Your task to perform on an android device: Play the last video I watched on Youtube Image 0: 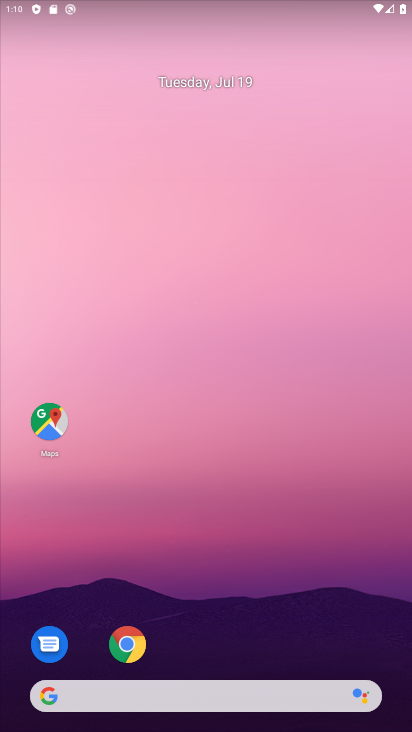
Step 0: drag from (394, 705) to (313, 125)
Your task to perform on an android device: Play the last video I watched on Youtube Image 1: 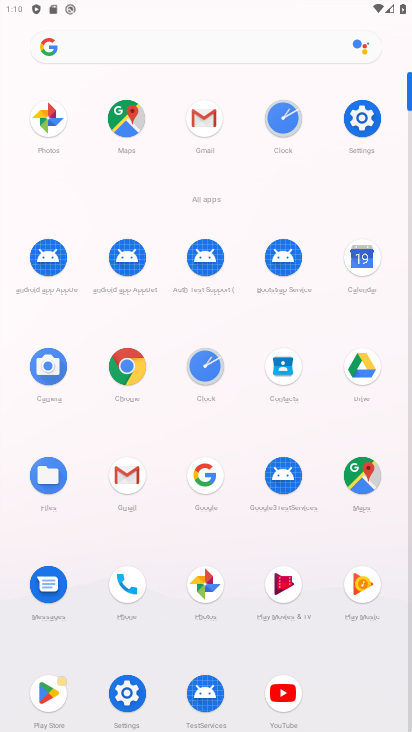
Step 1: click (280, 684)
Your task to perform on an android device: Play the last video I watched on Youtube Image 2: 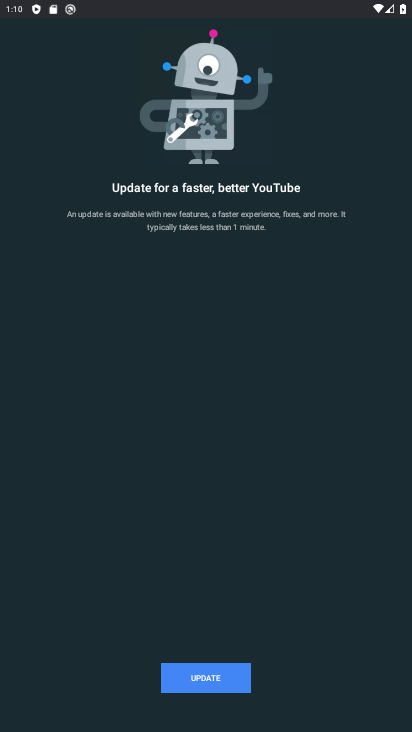
Step 2: press back button
Your task to perform on an android device: Play the last video I watched on Youtube Image 3: 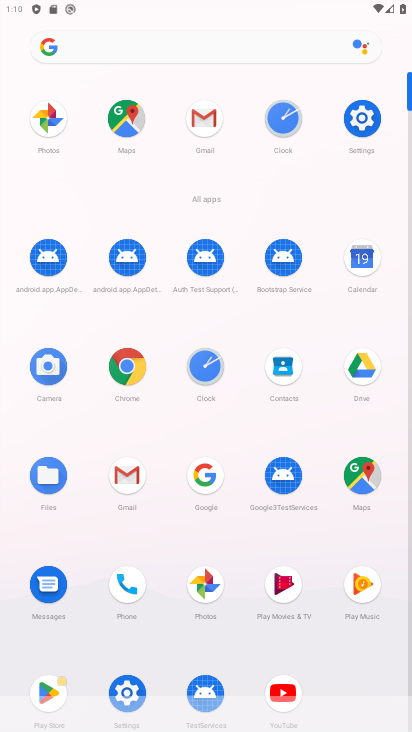
Step 3: click (275, 689)
Your task to perform on an android device: Play the last video I watched on Youtube Image 4: 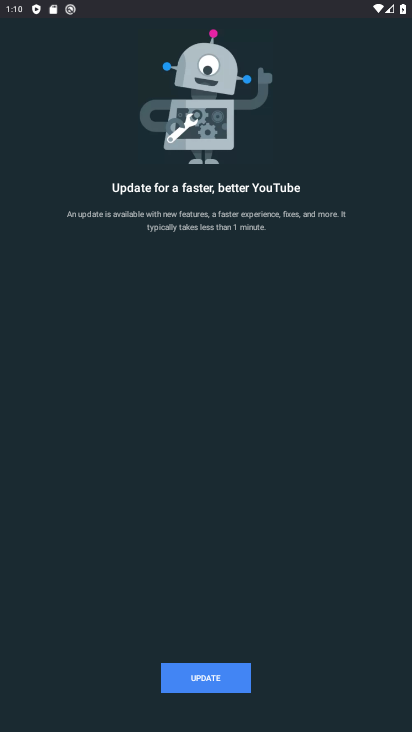
Step 4: click (224, 669)
Your task to perform on an android device: Play the last video I watched on Youtube Image 5: 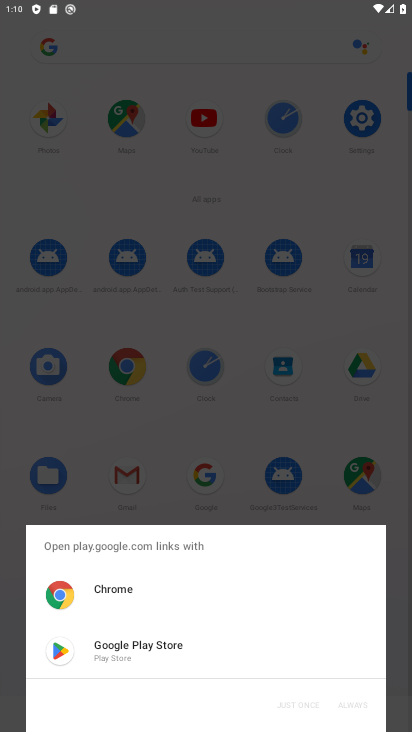
Step 5: click (115, 635)
Your task to perform on an android device: Play the last video I watched on Youtube Image 6: 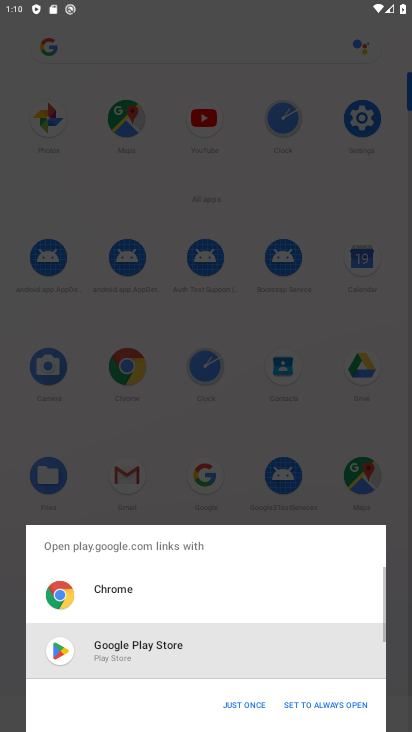
Step 6: click (242, 697)
Your task to perform on an android device: Play the last video I watched on Youtube Image 7: 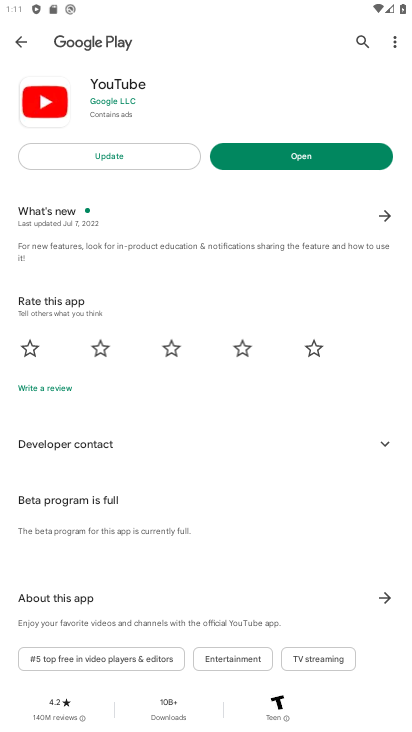
Step 7: click (117, 156)
Your task to perform on an android device: Play the last video I watched on Youtube Image 8: 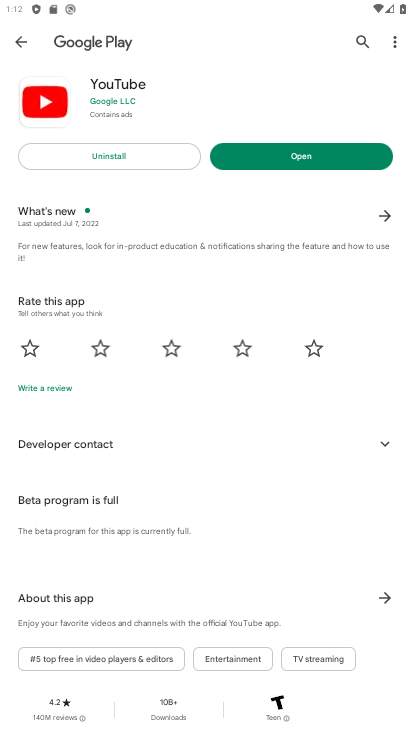
Step 8: click (282, 160)
Your task to perform on an android device: Play the last video I watched on Youtube Image 9: 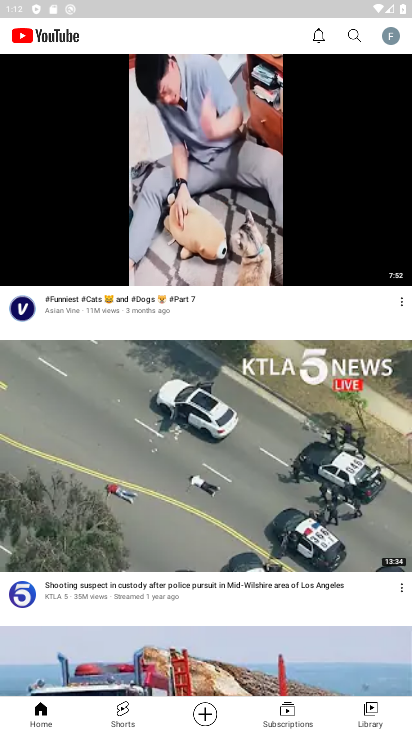
Step 9: click (364, 717)
Your task to perform on an android device: Play the last video I watched on Youtube Image 10: 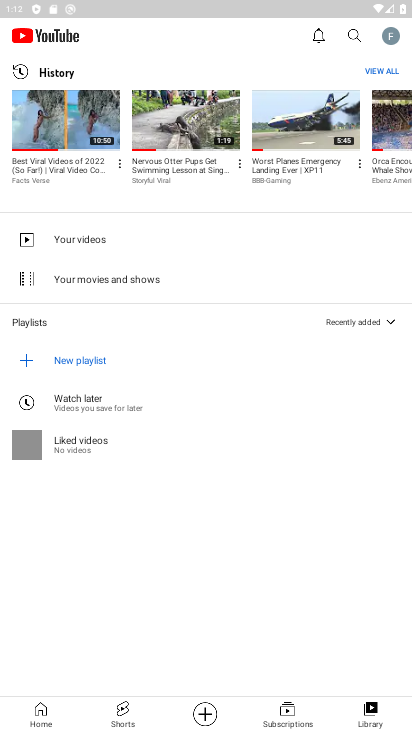
Step 10: click (70, 127)
Your task to perform on an android device: Play the last video I watched on Youtube Image 11: 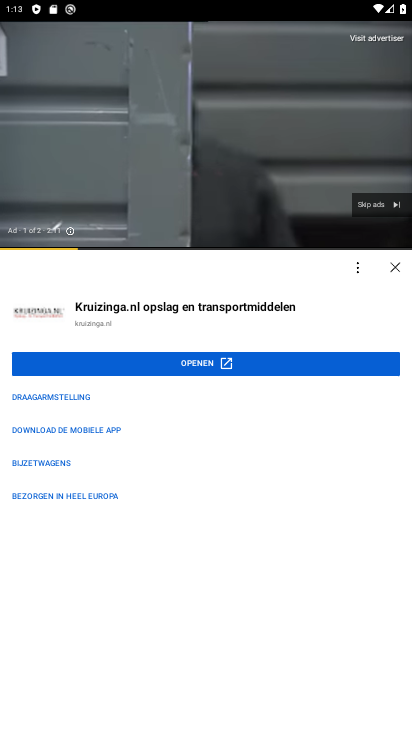
Step 11: task complete